Your task to perform on an android device: open app "Skype" (install if not already installed) Image 0: 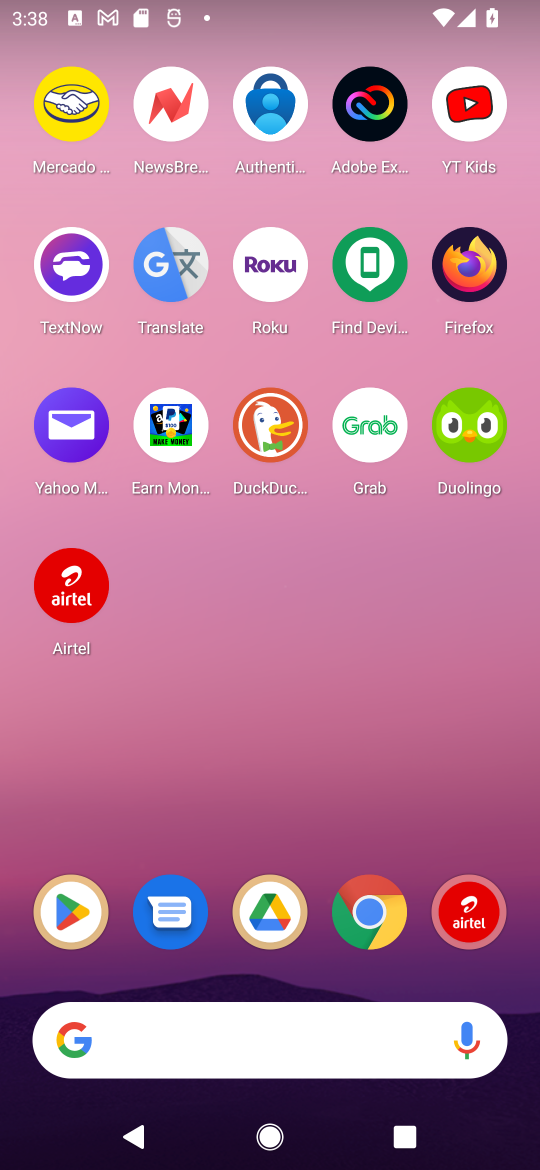
Step 0: click (71, 915)
Your task to perform on an android device: open app "Skype" (install if not already installed) Image 1: 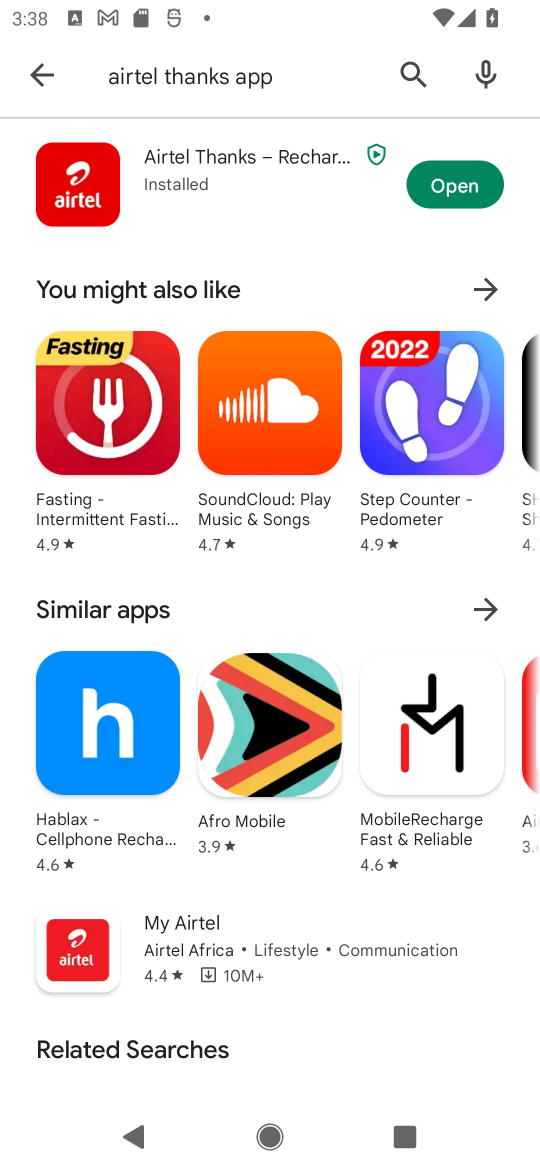
Step 1: click (414, 86)
Your task to perform on an android device: open app "Skype" (install if not already installed) Image 2: 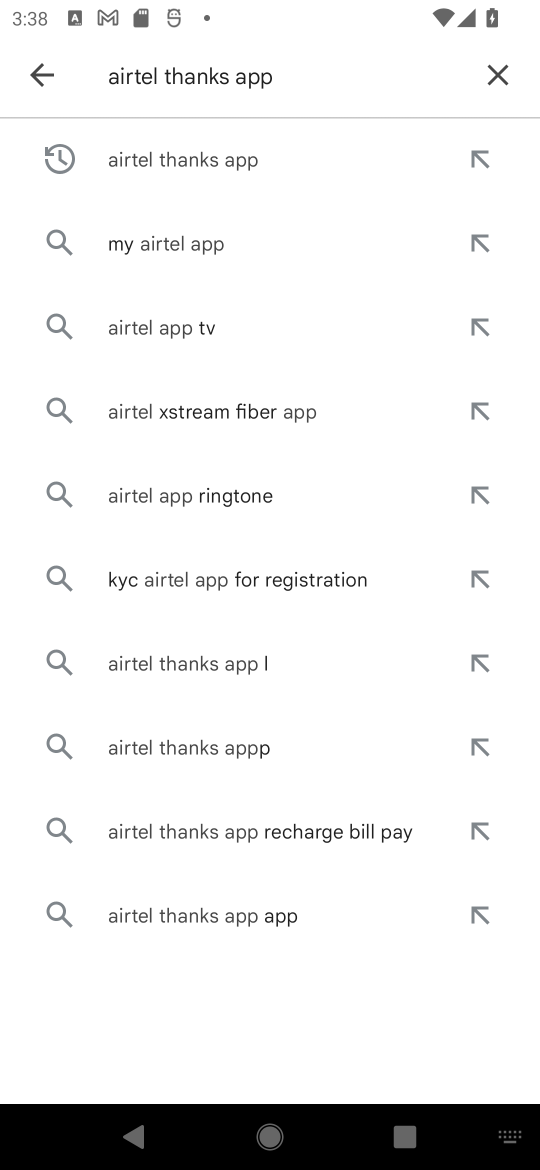
Step 2: click (507, 75)
Your task to perform on an android device: open app "Skype" (install if not already installed) Image 3: 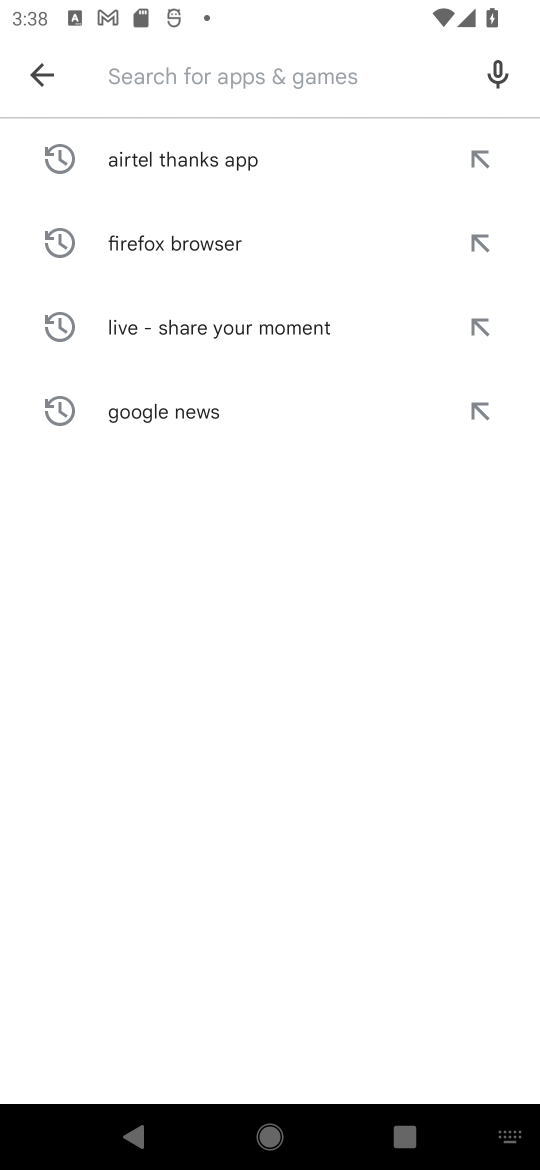
Step 3: click (245, 81)
Your task to perform on an android device: open app "Skype" (install if not already installed) Image 4: 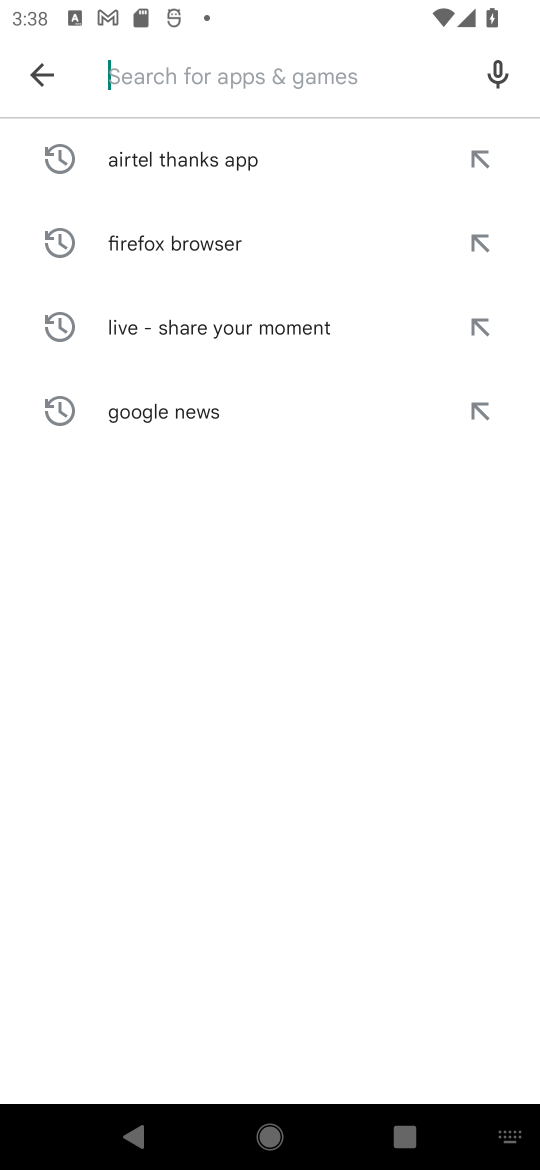
Step 4: type "Skype"
Your task to perform on an android device: open app "Skype" (install if not already installed) Image 5: 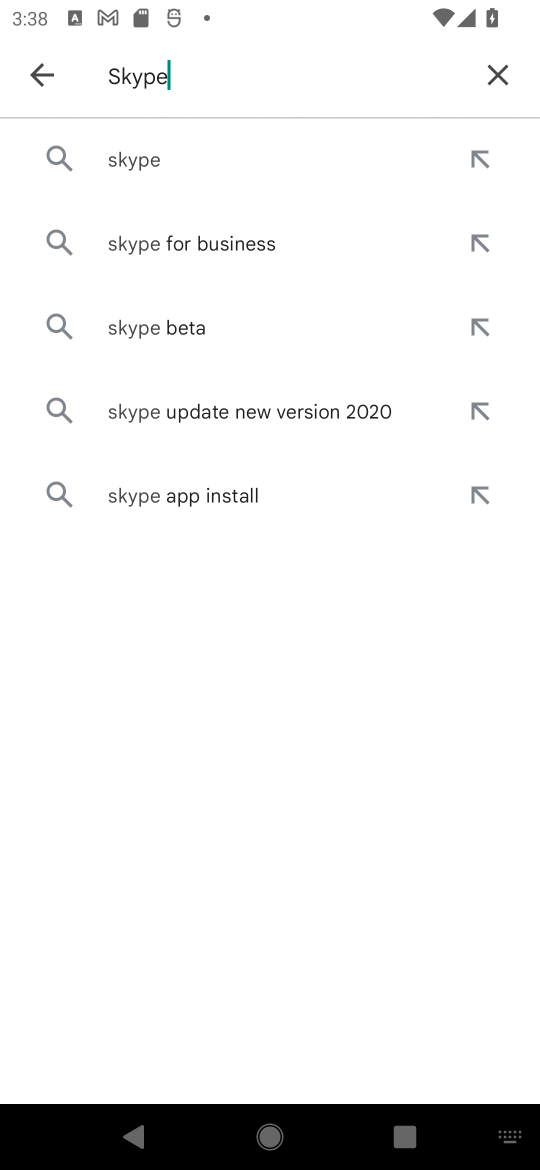
Step 5: click (122, 165)
Your task to perform on an android device: open app "Skype" (install if not already installed) Image 6: 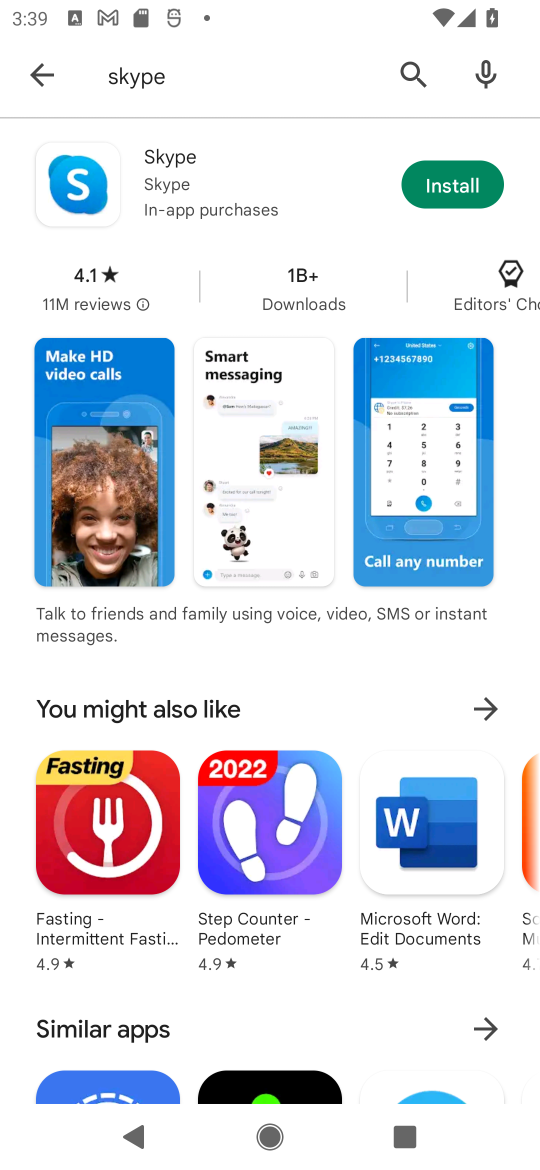
Step 6: click (450, 204)
Your task to perform on an android device: open app "Skype" (install if not already installed) Image 7: 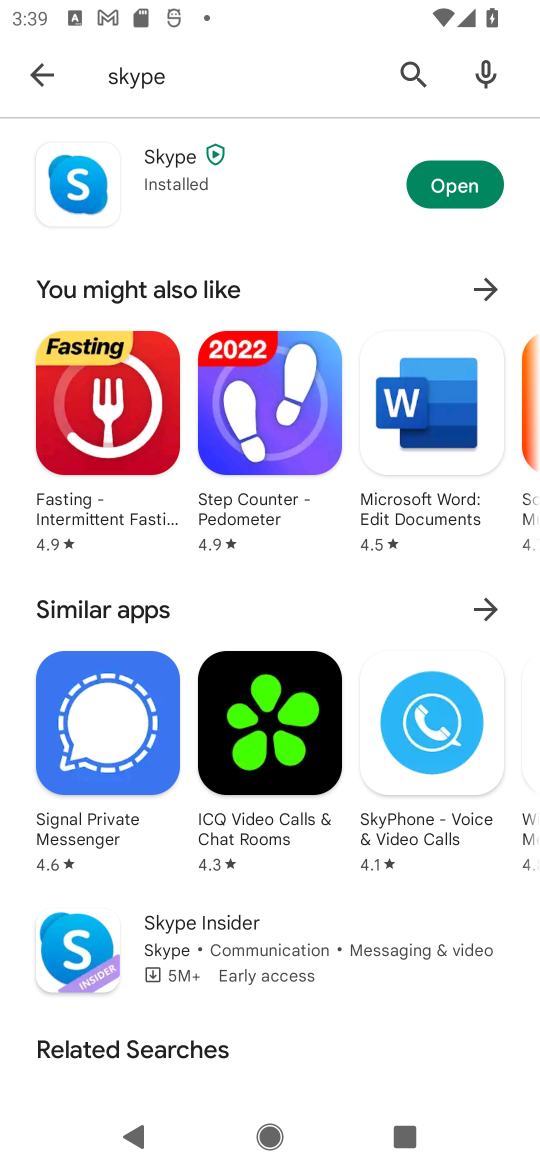
Step 7: click (450, 189)
Your task to perform on an android device: open app "Skype" (install if not already installed) Image 8: 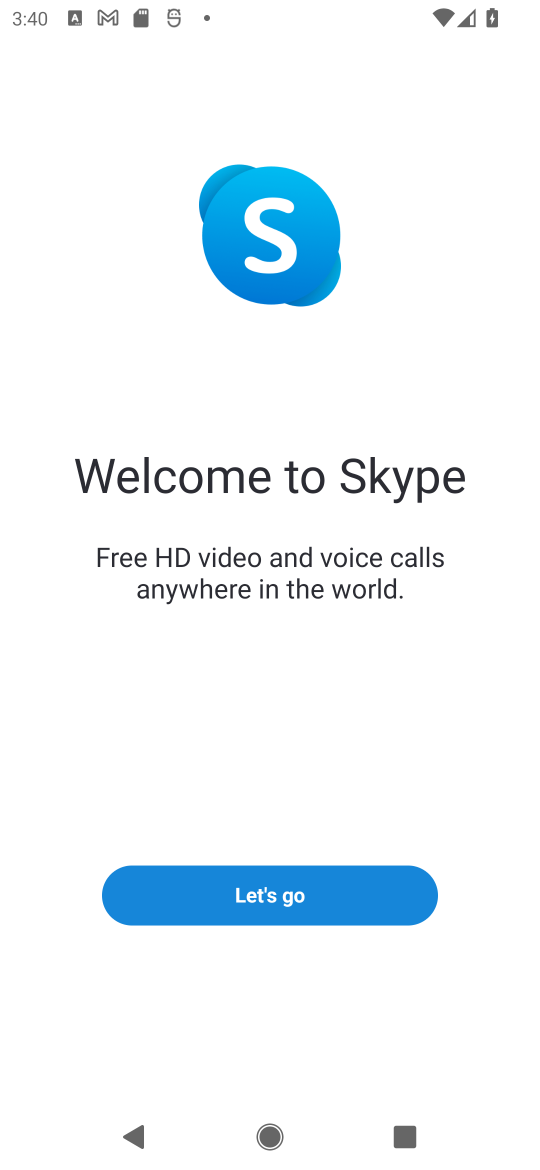
Step 8: task complete